Your task to perform on an android device: uninstall "Clock" Image 0: 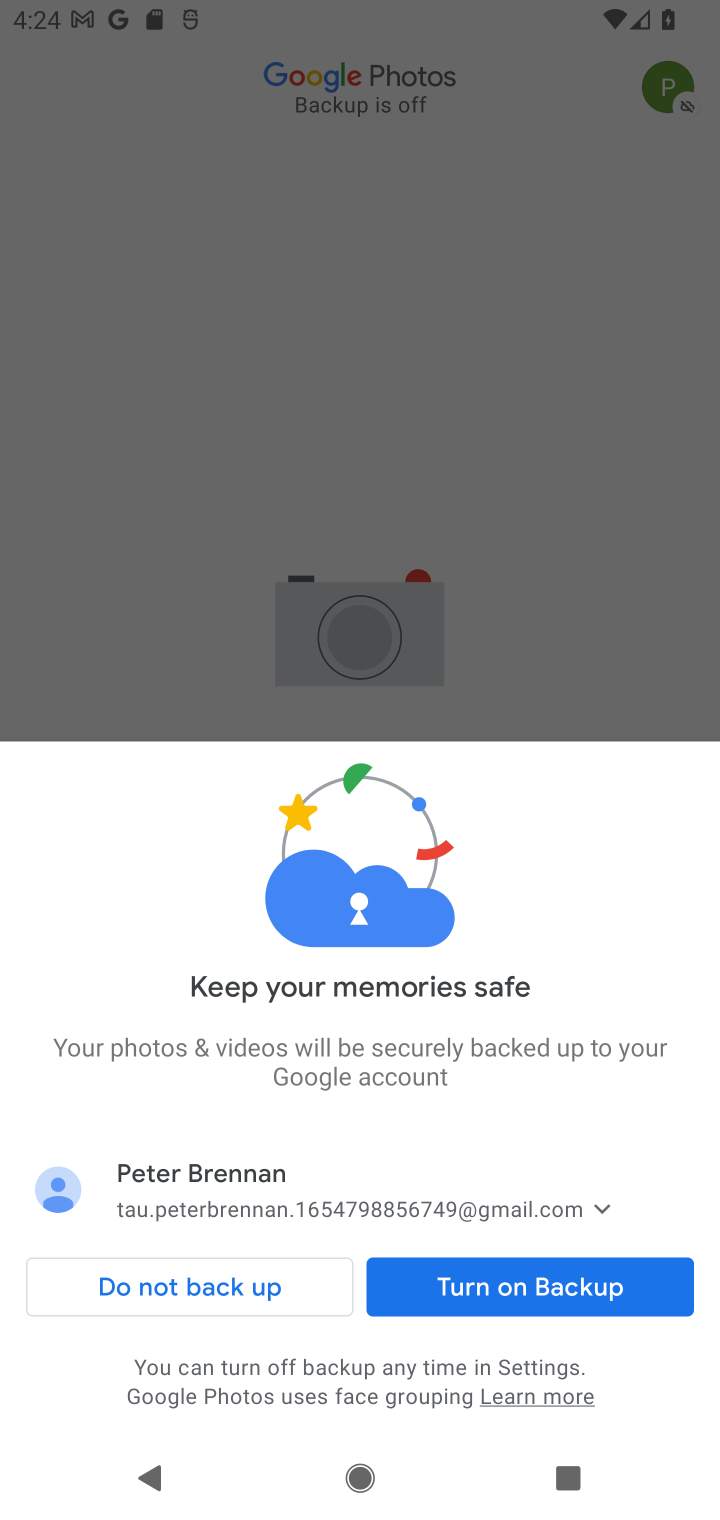
Step 0: press home button
Your task to perform on an android device: uninstall "Clock" Image 1: 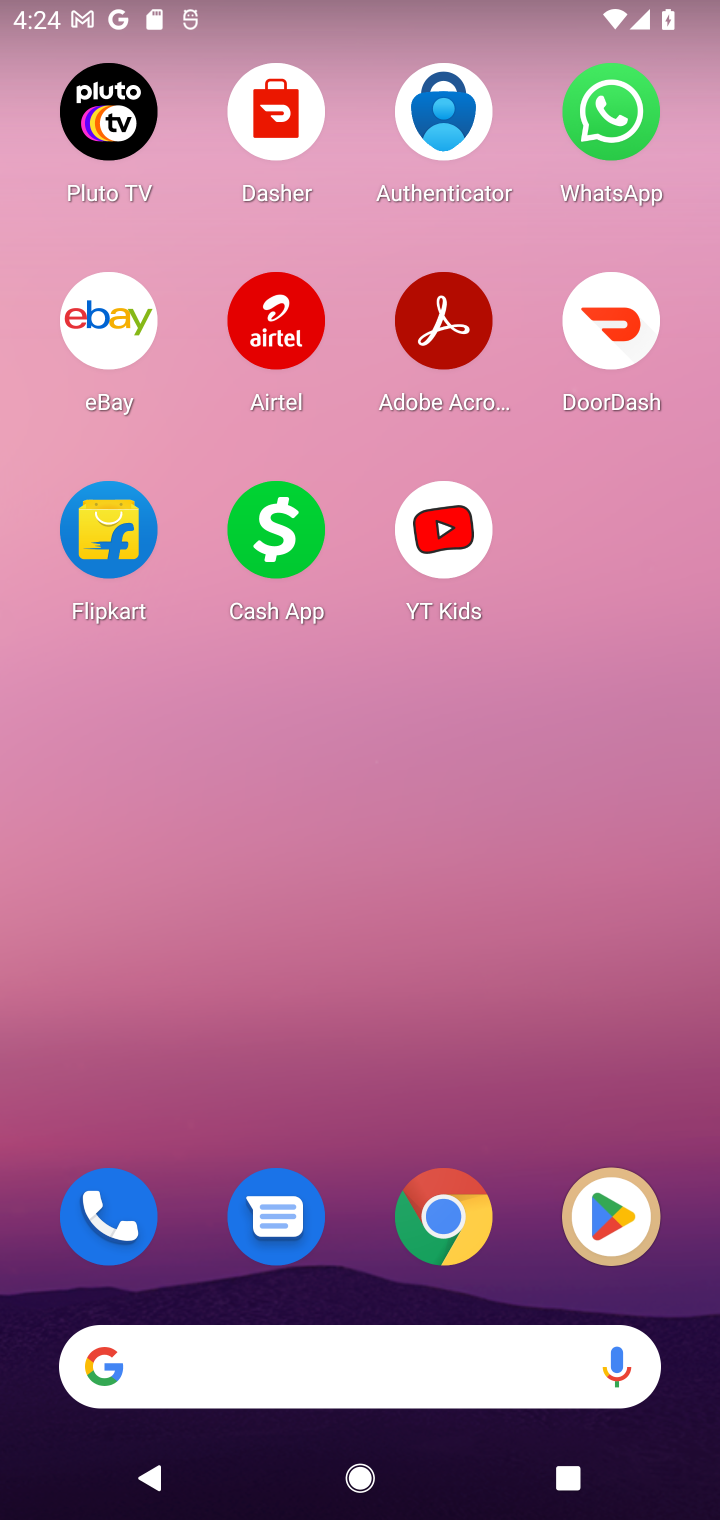
Step 1: click (598, 1211)
Your task to perform on an android device: uninstall "Clock" Image 2: 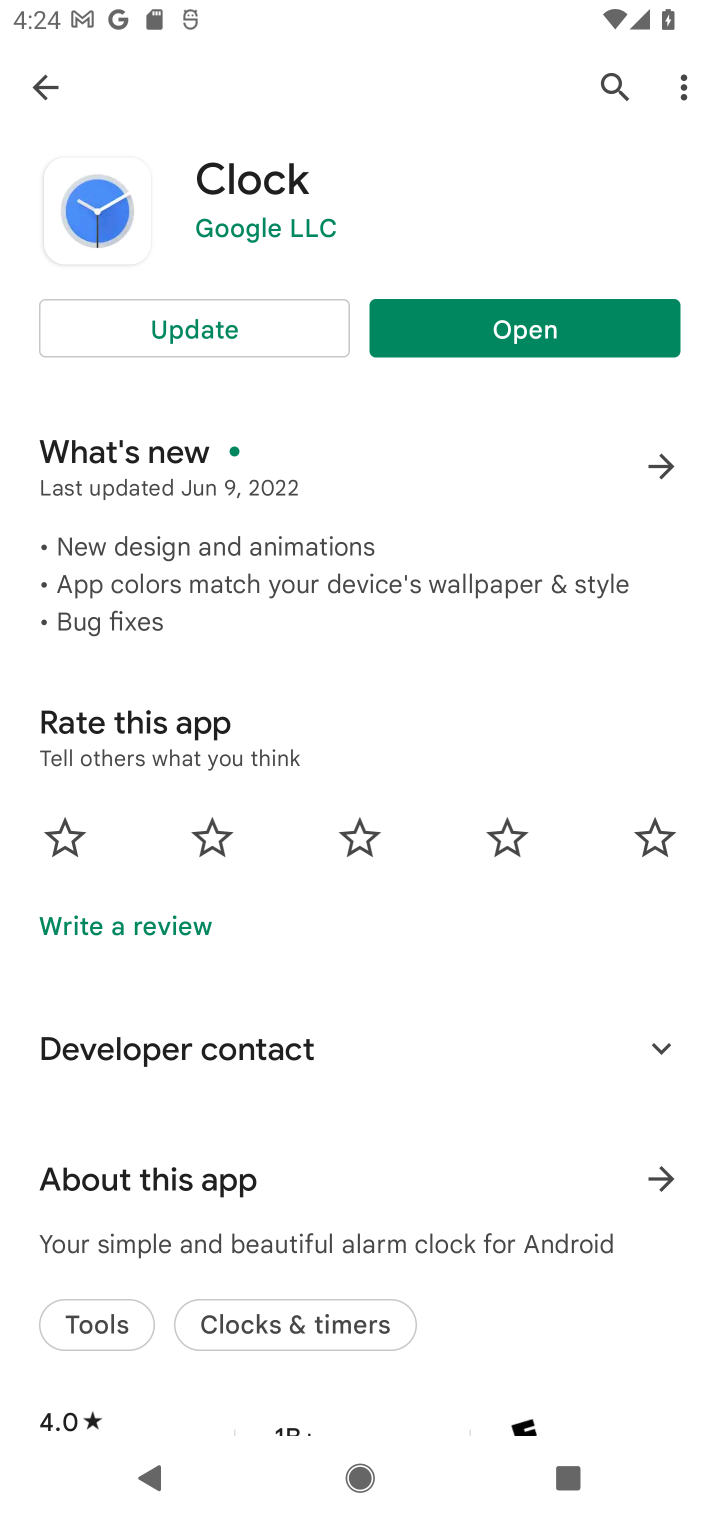
Step 2: click (172, 320)
Your task to perform on an android device: uninstall "Clock" Image 3: 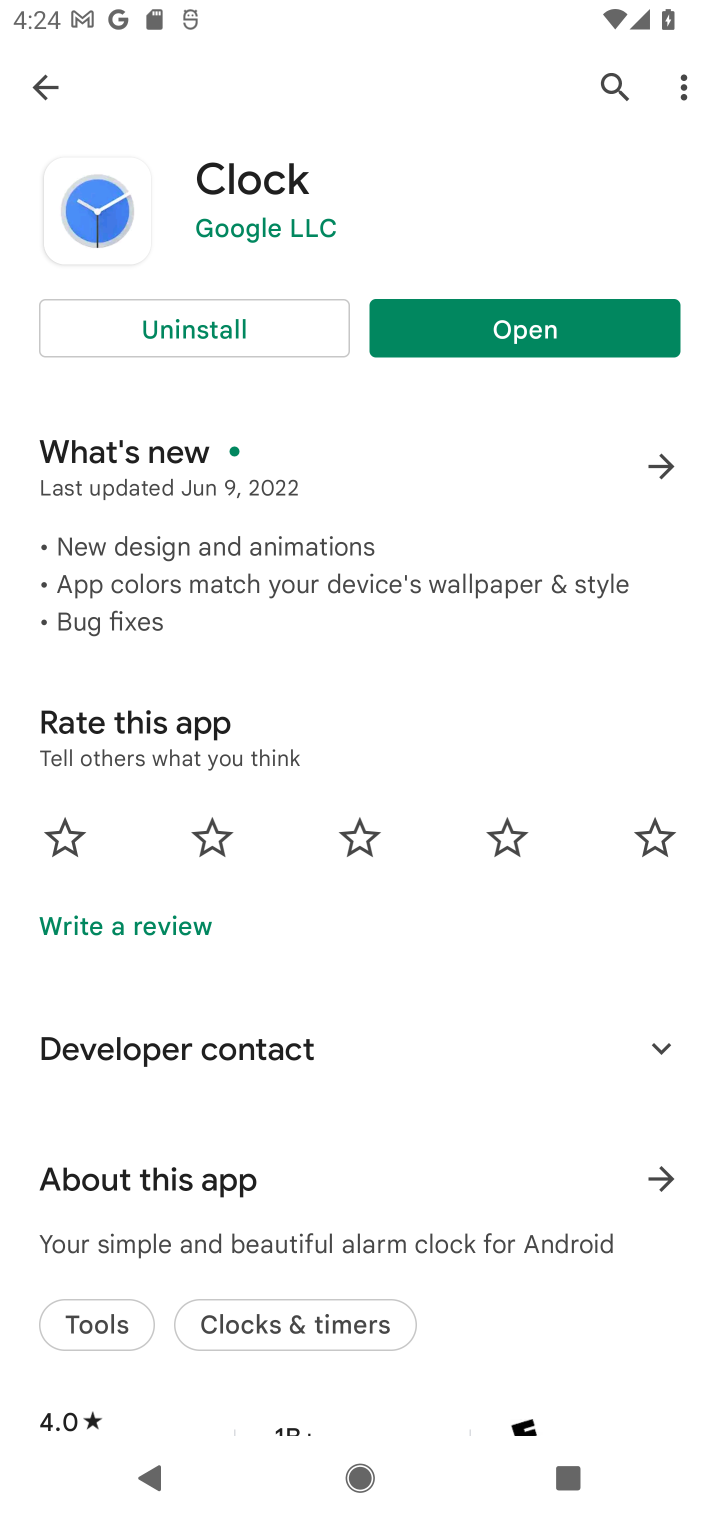
Step 3: click (292, 333)
Your task to perform on an android device: uninstall "Clock" Image 4: 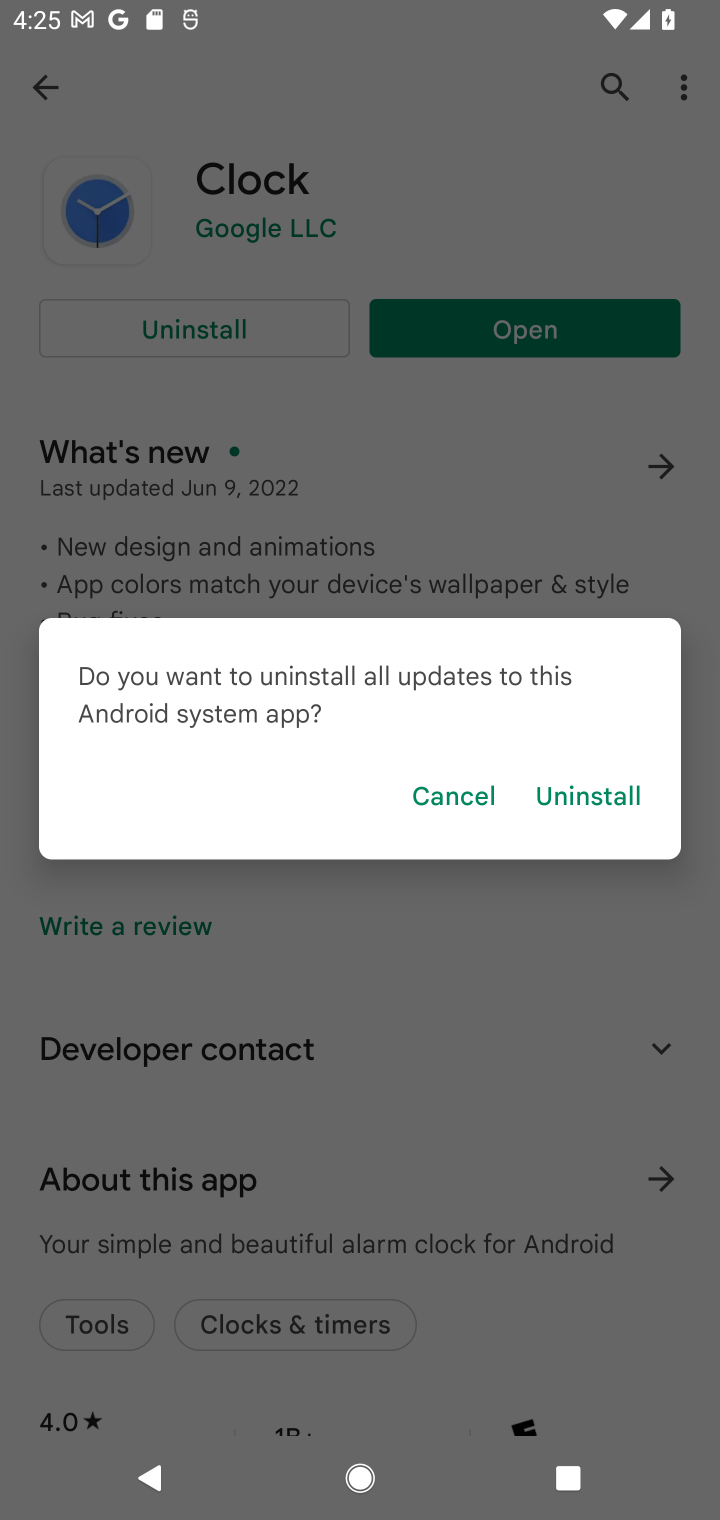
Step 4: click (563, 781)
Your task to perform on an android device: uninstall "Clock" Image 5: 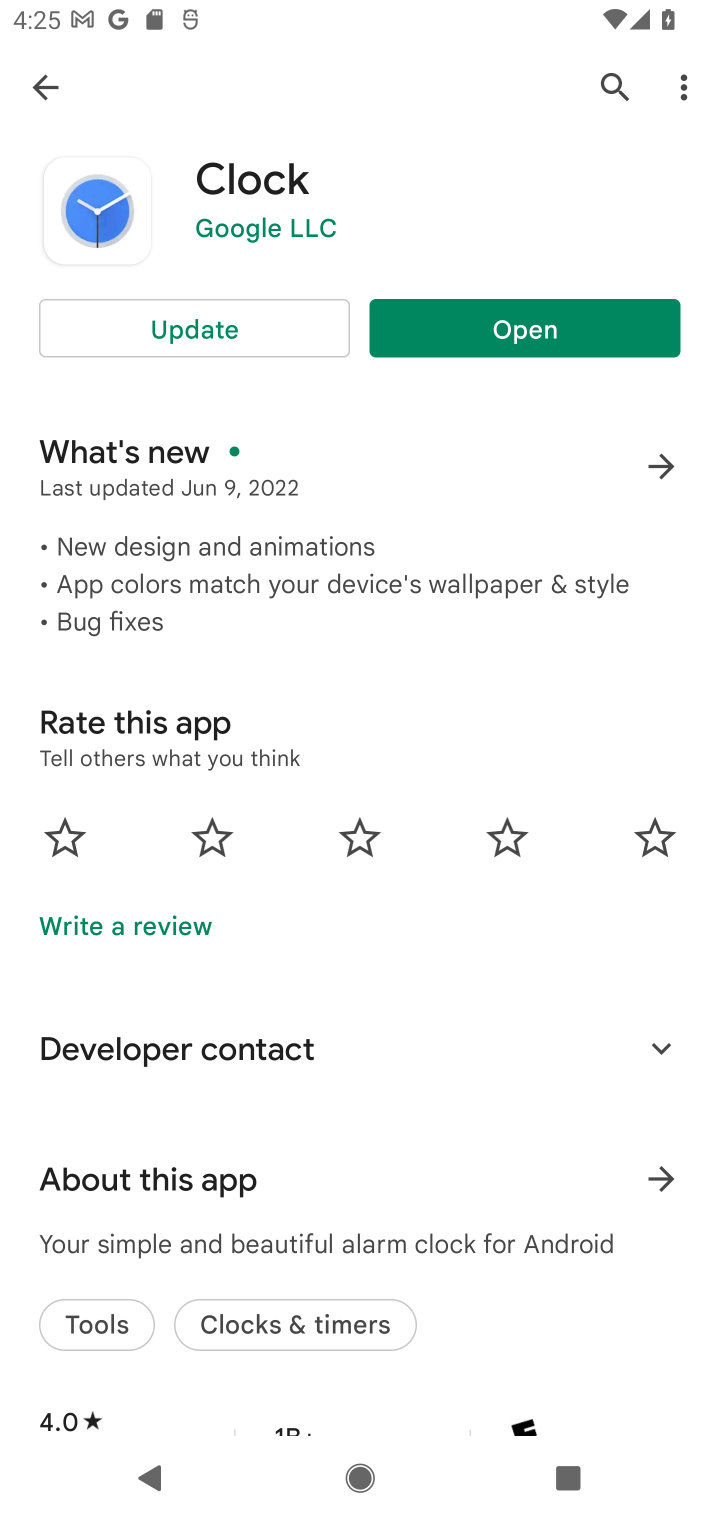
Step 5: task complete